Your task to perform on an android device: Open settings on Google Maps Image 0: 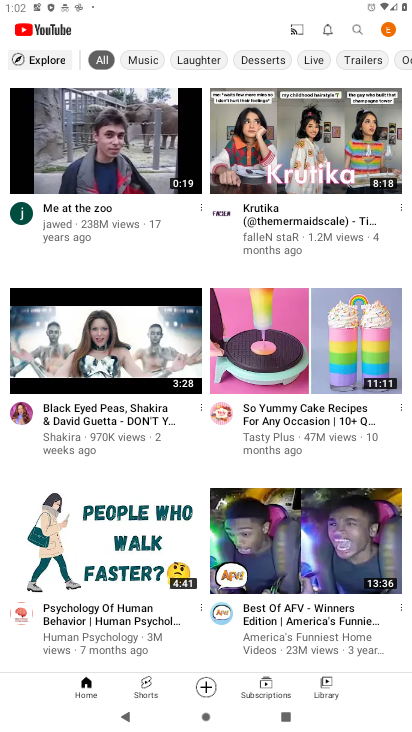
Step 0: press home button
Your task to perform on an android device: Open settings on Google Maps Image 1: 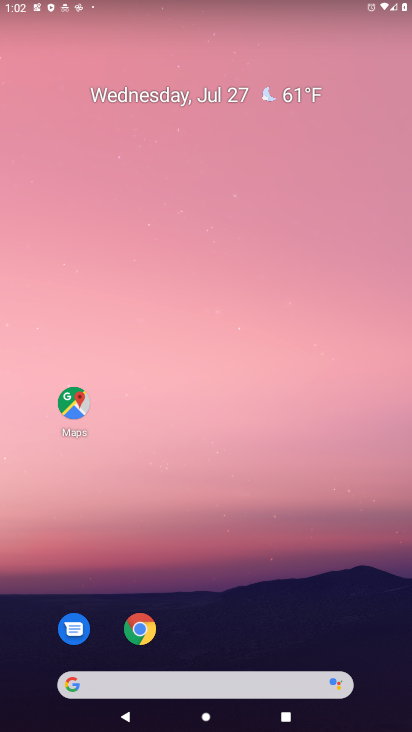
Step 1: press home button
Your task to perform on an android device: Open settings on Google Maps Image 2: 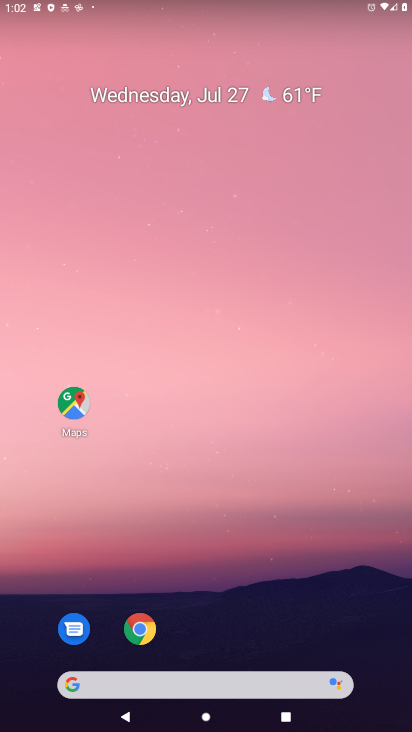
Step 2: click (79, 426)
Your task to perform on an android device: Open settings on Google Maps Image 3: 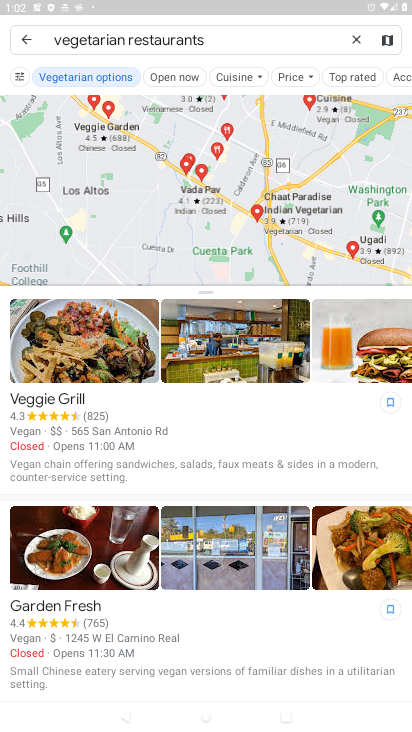
Step 3: click (13, 48)
Your task to perform on an android device: Open settings on Google Maps Image 4: 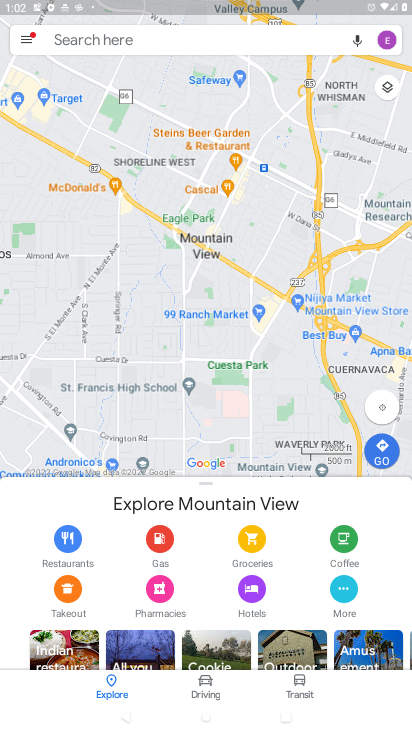
Step 4: click (17, 44)
Your task to perform on an android device: Open settings on Google Maps Image 5: 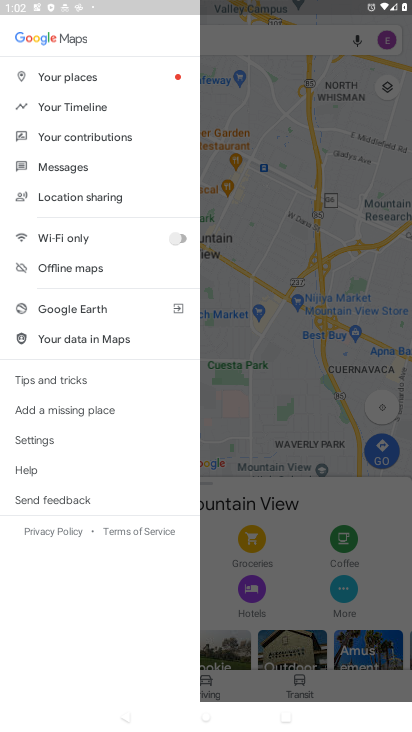
Step 5: click (96, 433)
Your task to perform on an android device: Open settings on Google Maps Image 6: 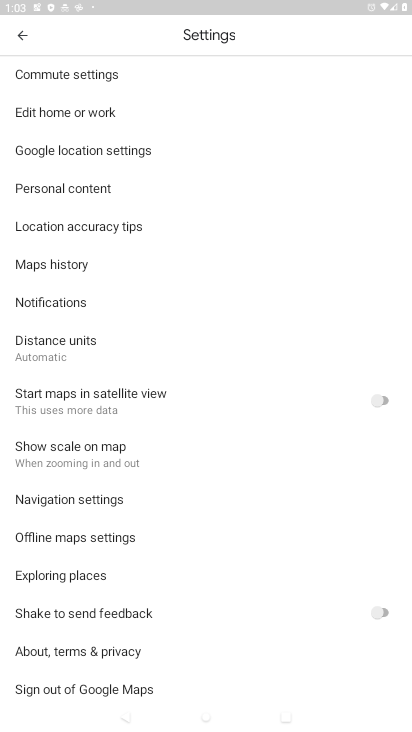
Step 6: task complete